Your task to perform on an android device: turn off location Image 0: 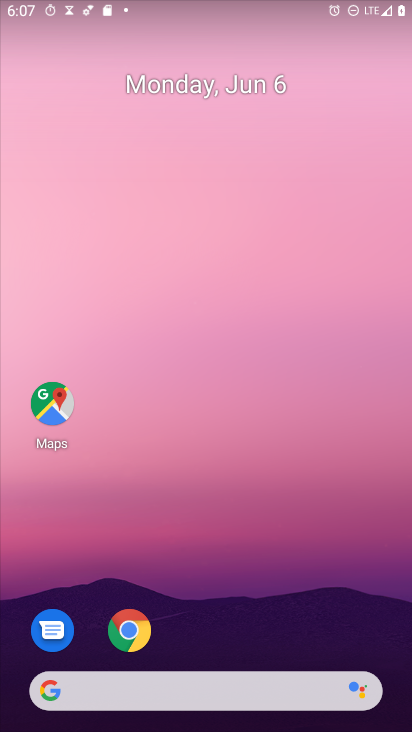
Step 0: drag from (309, 620) to (259, 98)
Your task to perform on an android device: turn off location Image 1: 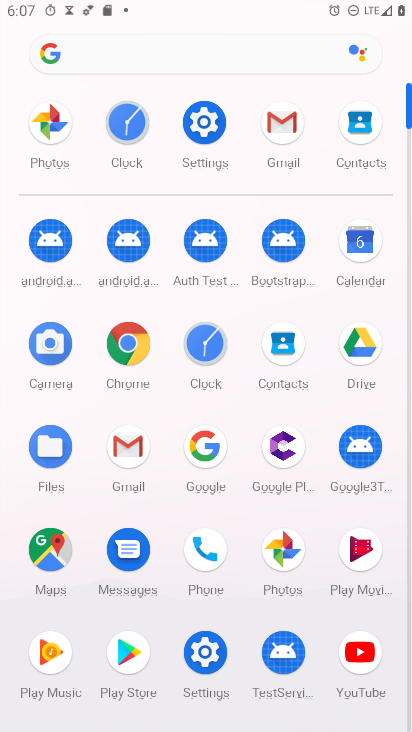
Step 1: click (211, 119)
Your task to perform on an android device: turn off location Image 2: 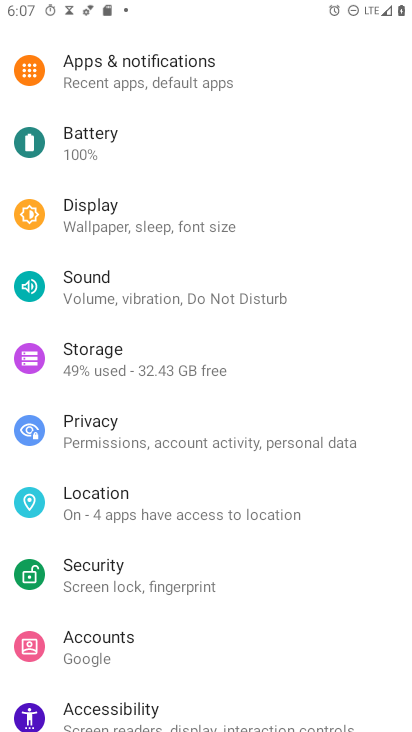
Step 2: click (180, 510)
Your task to perform on an android device: turn off location Image 3: 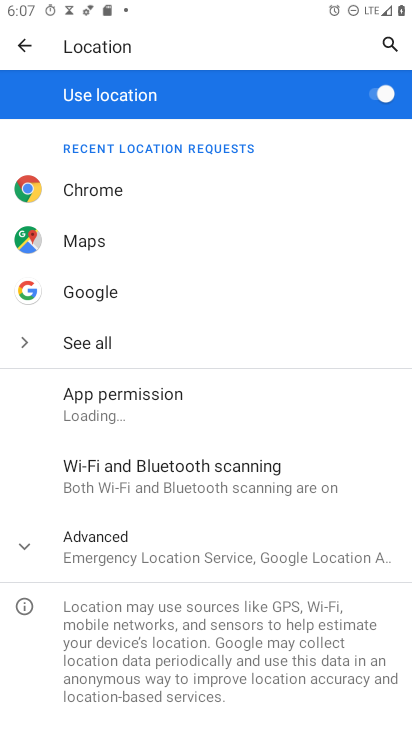
Step 3: click (387, 103)
Your task to perform on an android device: turn off location Image 4: 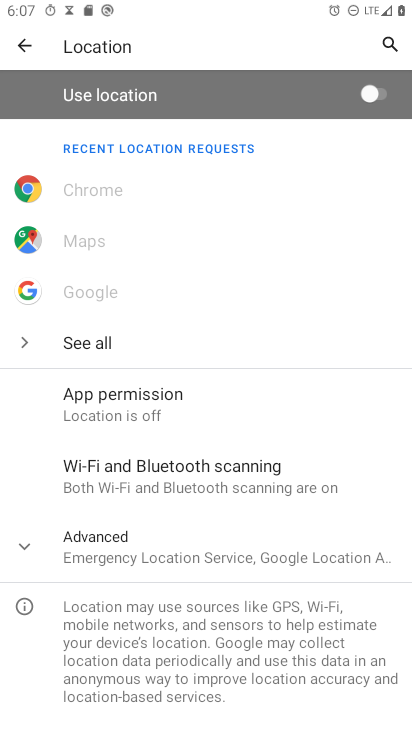
Step 4: task complete